Your task to perform on an android device: open a bookmark in the chrome app Image 0: 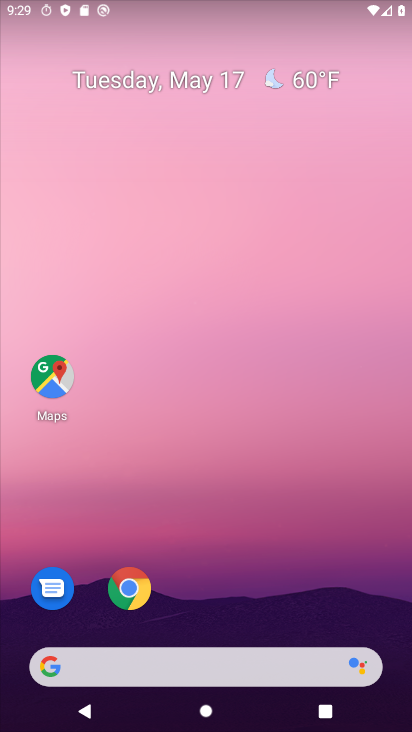
Step 0: drag from (266, 687) to (202, 154)
Your task to perform on an android device: open a bookmark in the chrome app Image 1: 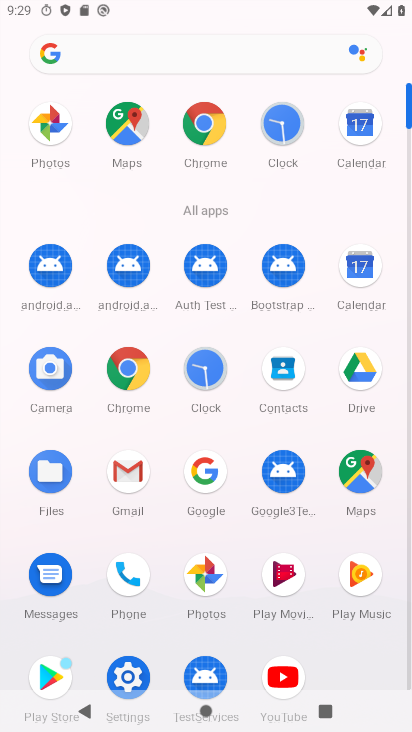
Step 1: drag from (243, 624) to (170, 147)
Your task to perform on an android device: open a bookmark in the chrome app Image 2: 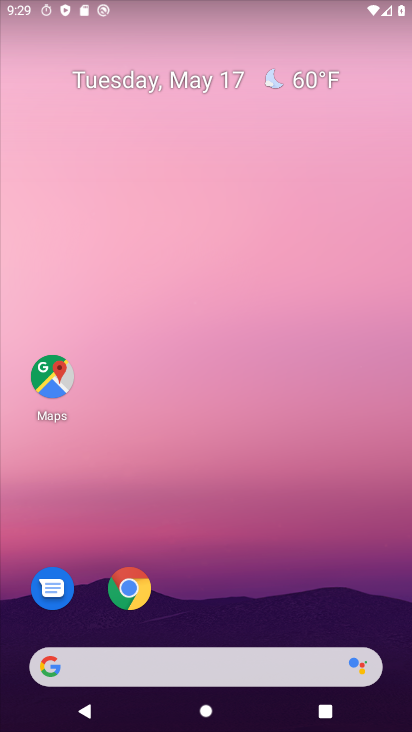
Step 2: click (208, 249)
Your task to perform on an android device: open a bookmark in the chrome app Image 3: 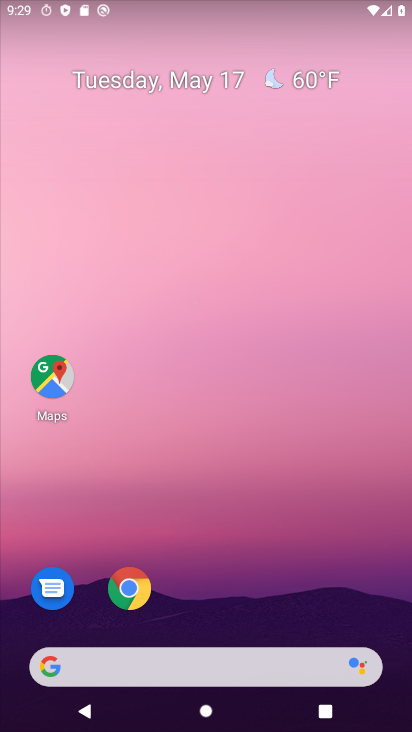
Step 3: drag from (235, 345) to (197, 118)
Your task to perform on an android device: open a bookmark in the chrome app Image 4: 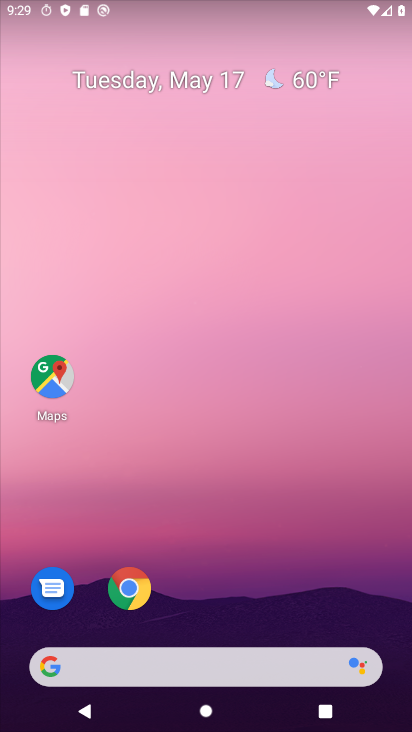
Step 4: drag from (159, 3) to (182, 42)
Your task to perform on an android device: open a bookmark in the chrome app Image 5: 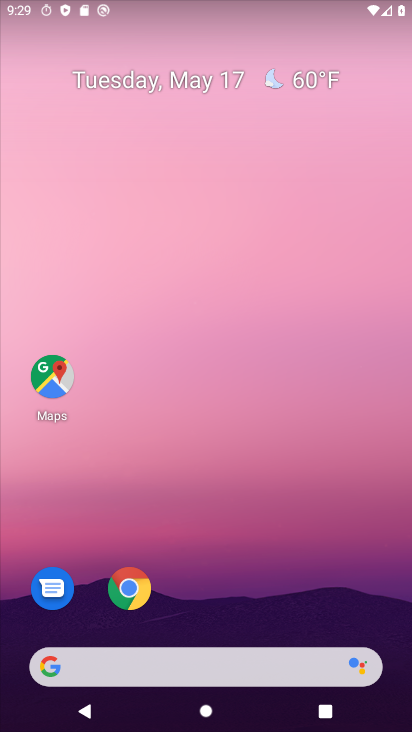
Step 5: drag from (249, 632) to (193, 39)
Your task to perform on an android device: open a bookmark in the chrome app Image 6: 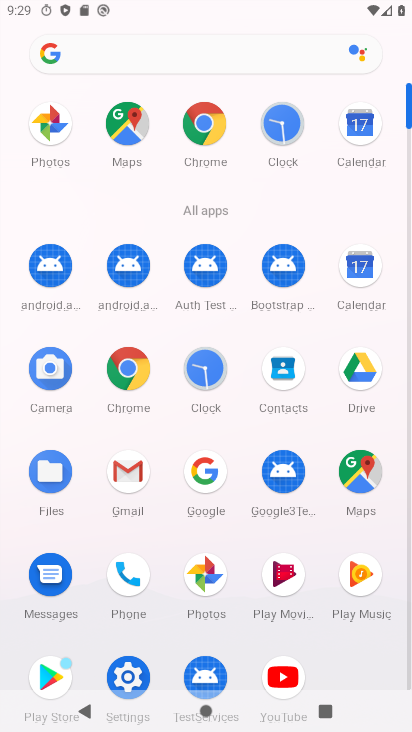
Step 6: drag from (205, 478) to (245, 99)
Your task to perform on an android device: open a bookmark in the chrome app Image 7: 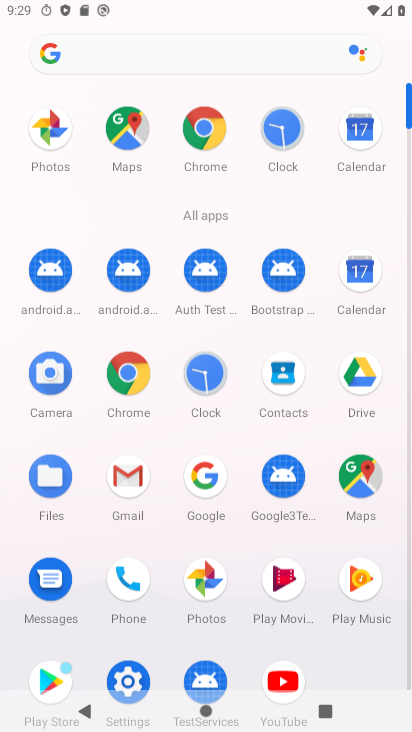
Step 7: drag from (261, 379) to (239, 48)
Your task to perform on an android device: open a bookmark in the chrome app Image 8: 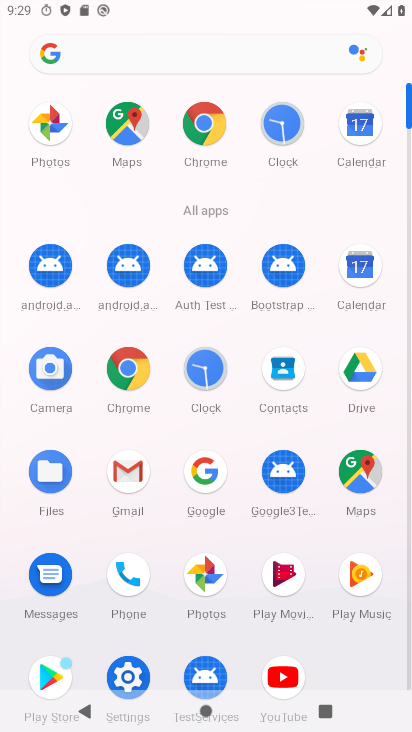
Step 8: click (207, 125)
Your task to perform on an android device: open a bookmark in the chrome app Image 9: 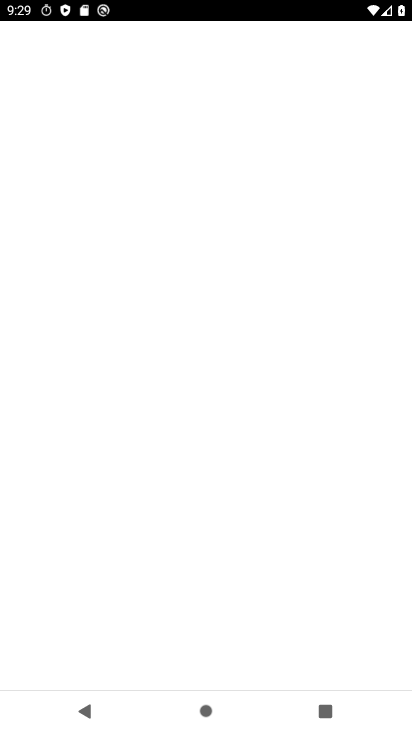
Step 9: click (208, 122)
Your task to perform on an android device: open a bookmark in the chrome app Image 10: 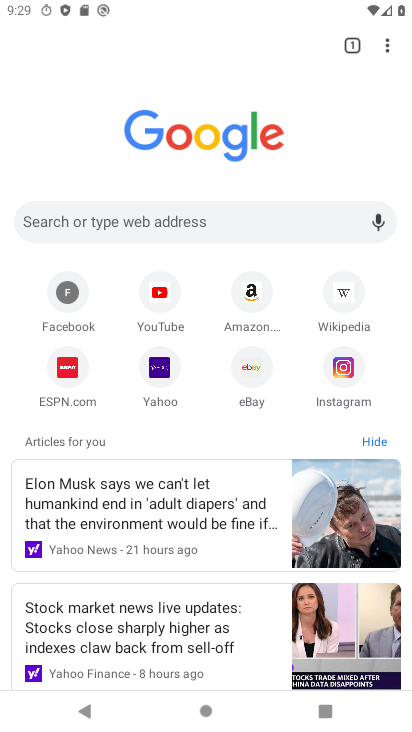
Step 10: drag from (381, 50) to (219, 381)
Your task to perform on an android device: open a bookmark in the chrome app Image 11: 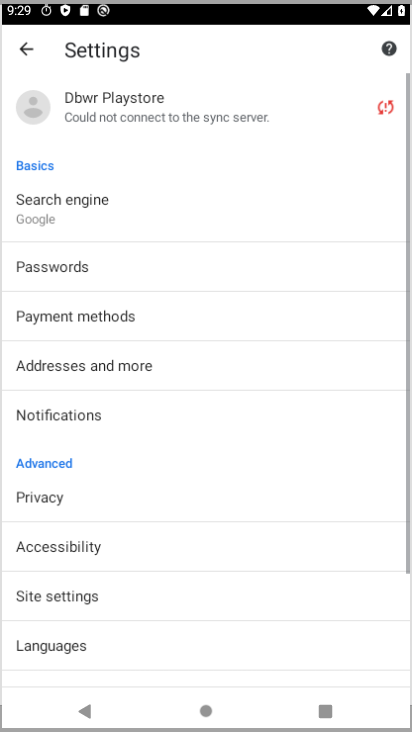
Step 11: click (221, 373)
Your task to perform on an android device: open a bookmark in the chrome app Image 12: 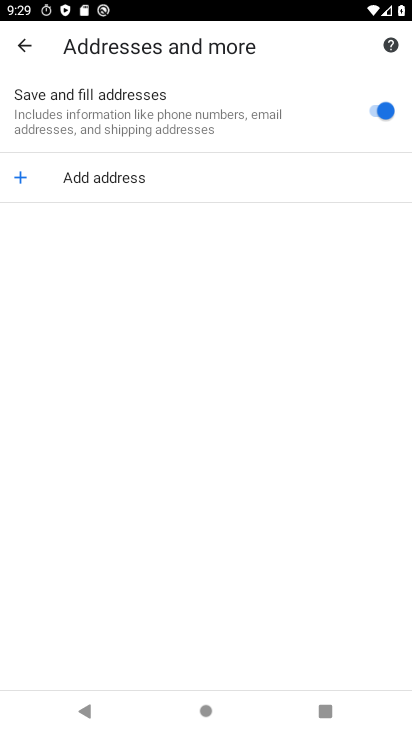
Step 12: click (14, 46)
Your task to perform on an android device: open a bookmark in the chrome app Image 13: 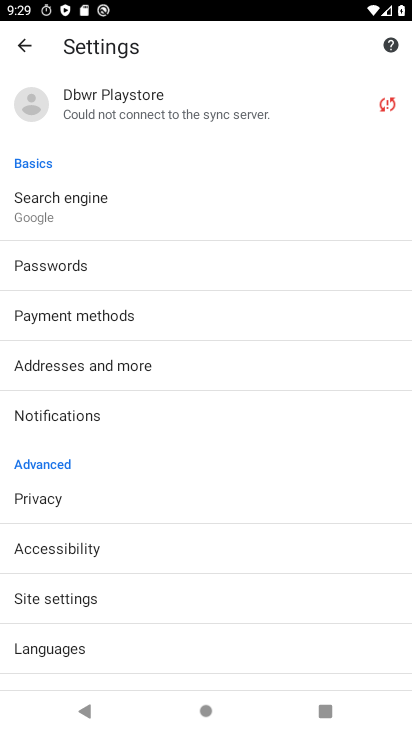
Step 13: click (23, 33)
Your task to perform on an android device: open a bookmark in the chrome app Image 14: 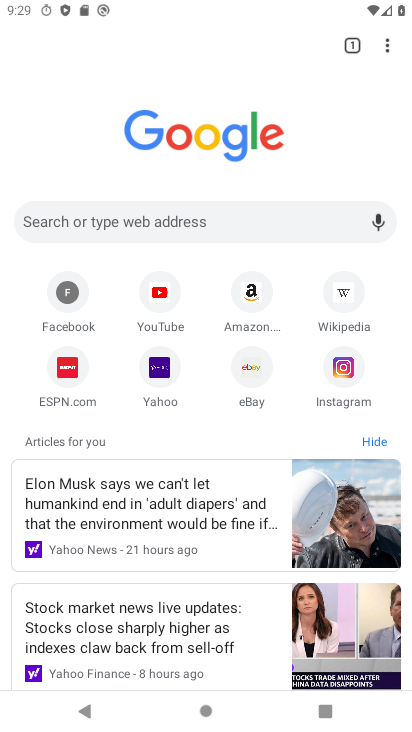
Step 14: drag from (387, 38) to (236, 177)
Your task to perform on an android device: open a bookmark in the chrome app Image 15: 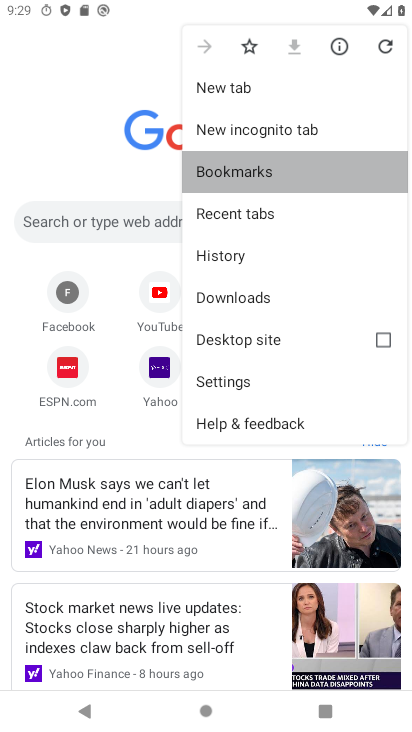
Step 15: click (234, 176)
Your task to perform on an android device: open a bookmark in the chrome app Image 16: 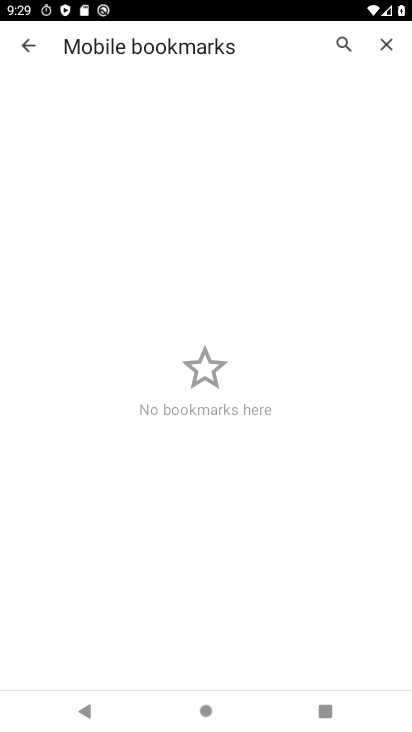
Step 16: task complete